Your task to perform on an android device: turn off translation in the chrome app Image 0: 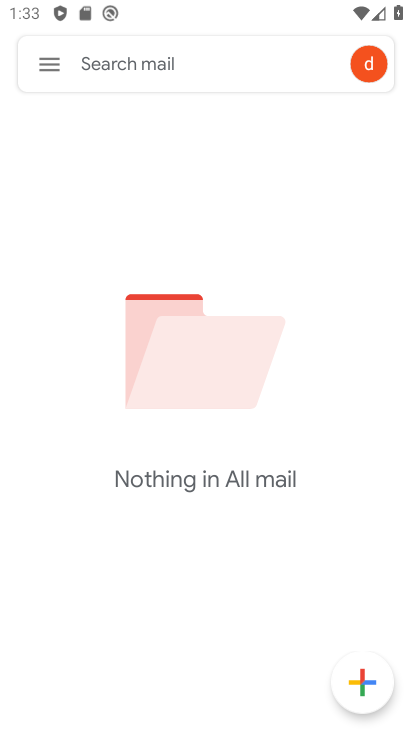
Step 0: press home button
Your task to perform on an android device: turn off translation in the chrome app Image 1: 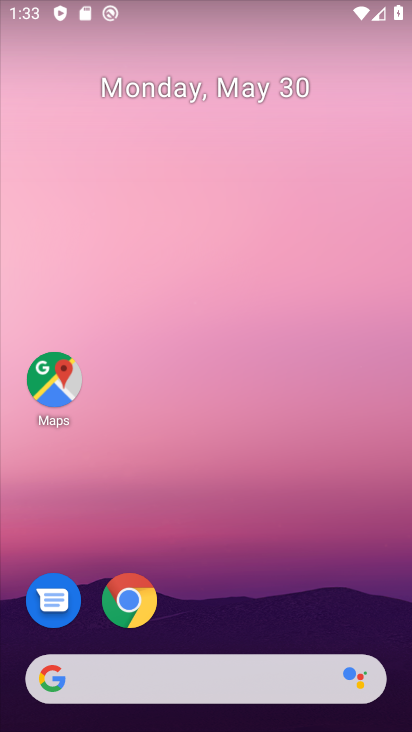
Step 1: click (136, 610)
Your task to perform on an android device: turn off translation in the chrome app Image 2: 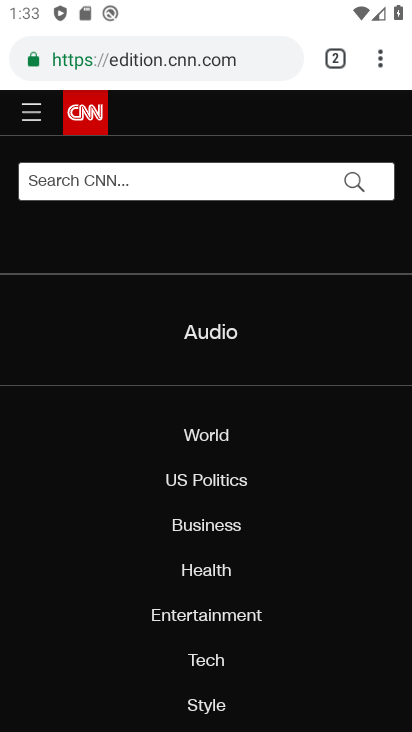
Step 2: click (381, 60)
Your task to perform on an android device: turn off translation in the chrome app Image 3: 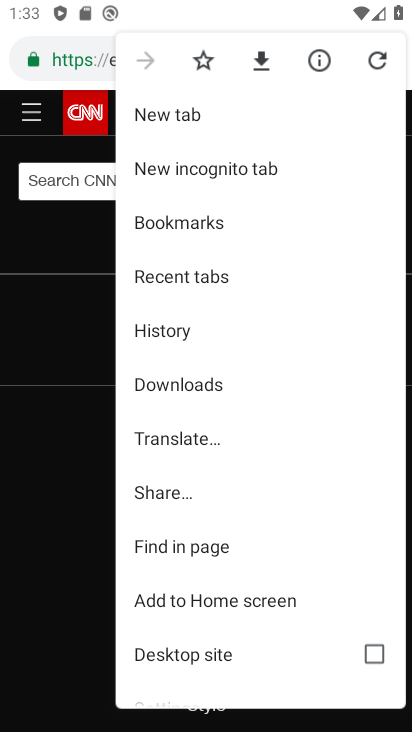
Step 3: drag from (255, 620) to (237, 188)
Your task to perform on an android device: turn off translation in the chrome app Image 4: 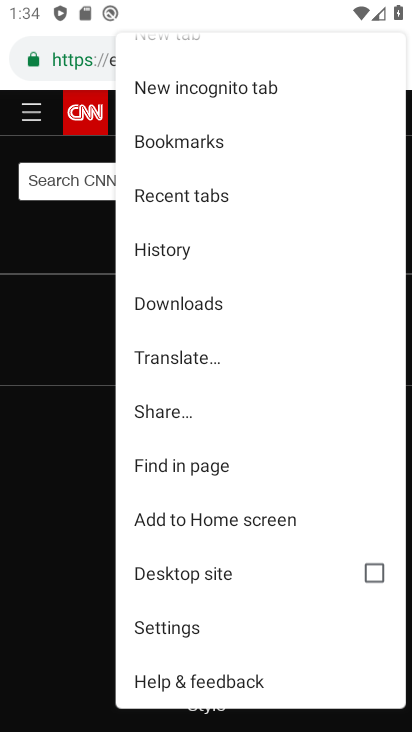
Step 4: click (155, 637)
Your task to perform on an android device: turn off translation in the chrome app Image 5: 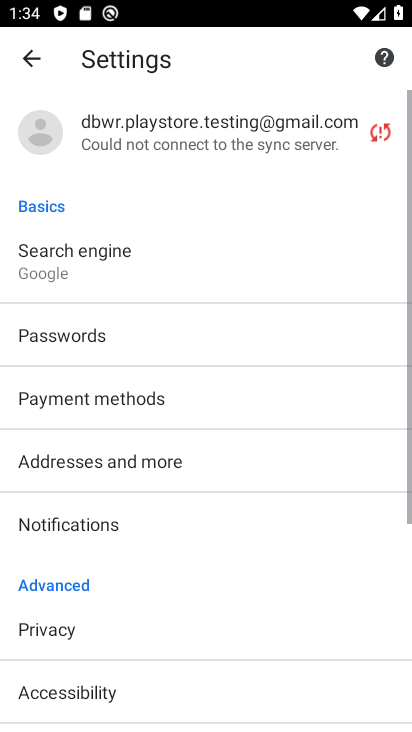
Step 5: drag from (180, 616) to (178, 131)
Your task to perform on an android device: turn off translation in the chrome app Image 6: 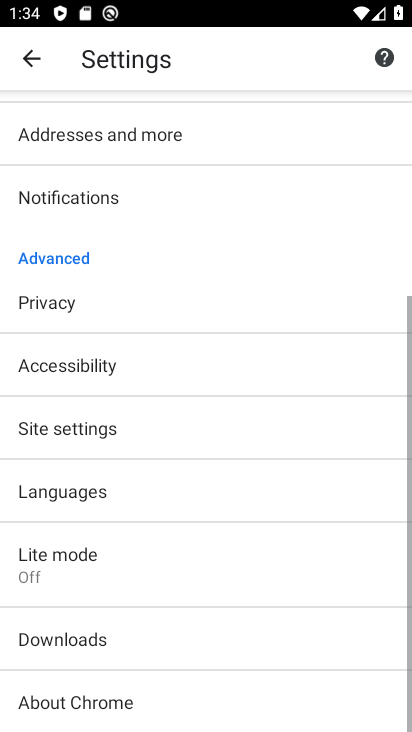
Step 6: click (91, 496)
Your task to perform on an android device: turn off translation in the chrome app Image 7: 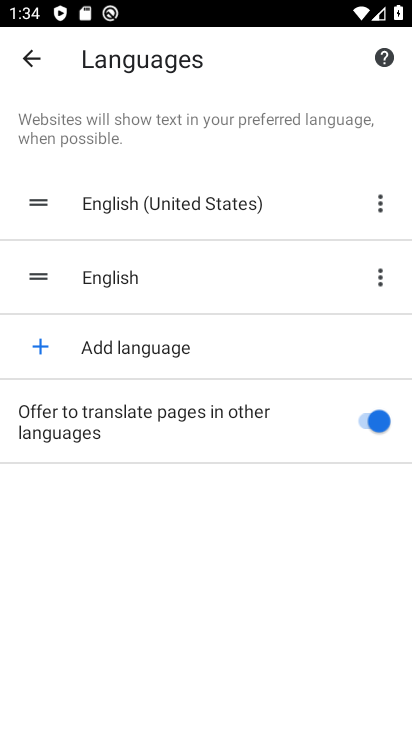
Step 7: click (365, 421)
Your task to perform on an android device: turn off translation in the chrome app Image 8: 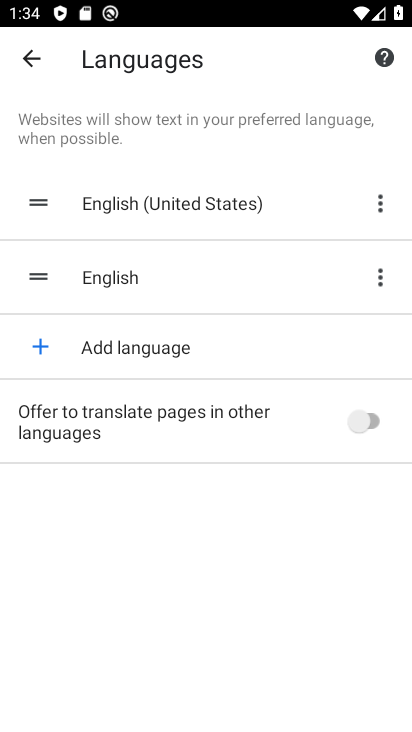
Step 8: task complete